Your task to perform on an android device: turn vacation reply on in the gmail app Image 0: 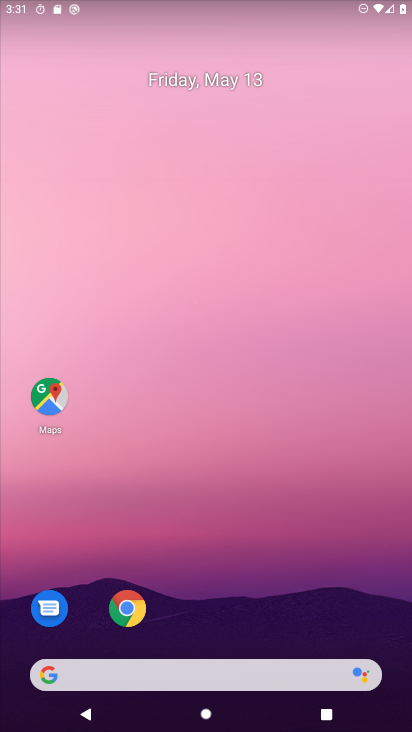
Step 0: drag from (263, 623) to (406, 17)
Your task to perform on an android device: turn vacation reply on in the gmail app Image 1: 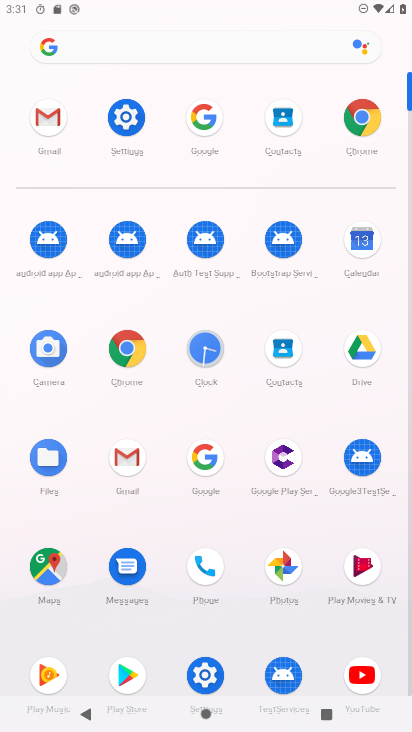
Step 1: click (52, 132)
Your task to perform on an android device: turn vacation reply on in the gmail app Image 2: 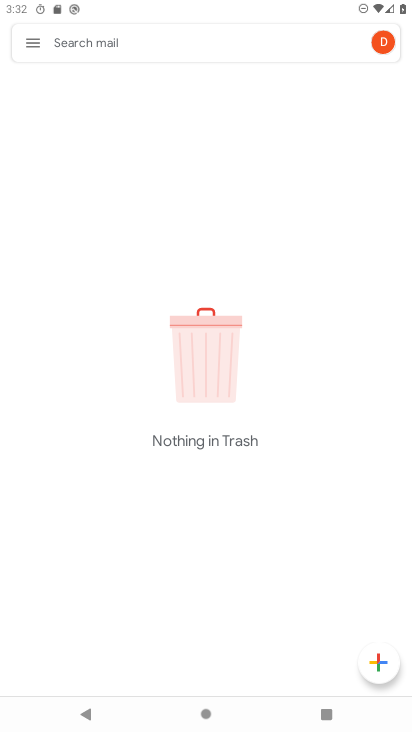
Step 2: click (31, 34)
Your task to perform on an android device: turn vacation reply on in the gmail app Image 3: 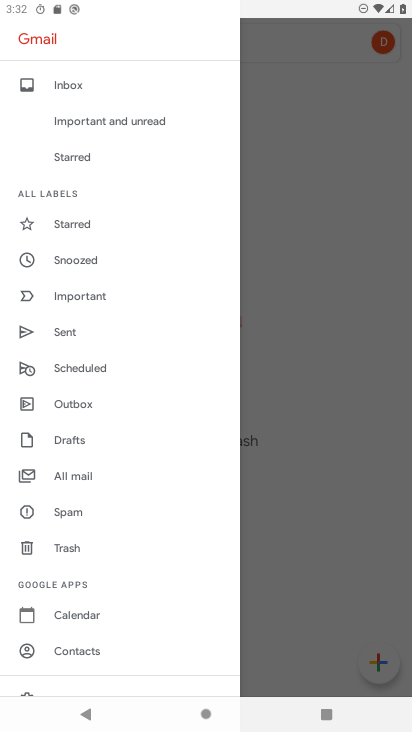
Step 3: drag from (170, 627) to (198, 341)
Your task to perform on an android device: turn vacation reply on in the gmail app Image 4: 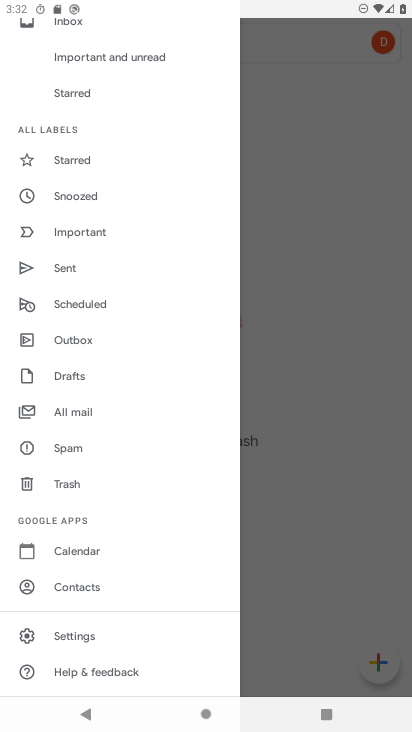
Step 4: click (81, 634)
Your task to perform on an android device: turn vacation reply on in the gmail app Image 5: 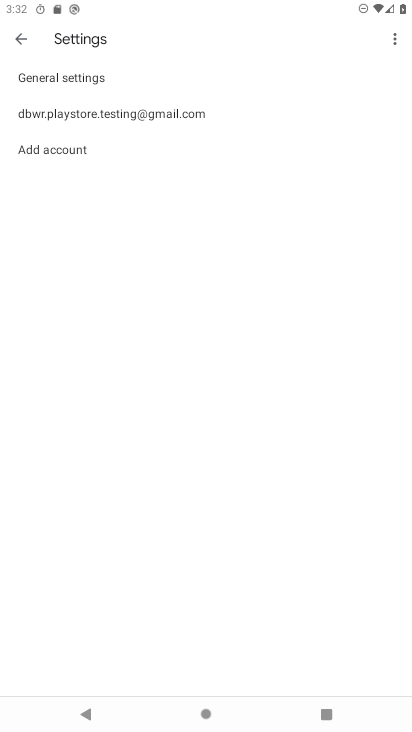
Step 5: click (178, 111)
Your task to perform on an android device: turn vacation reply on in the gmail app Image 6: 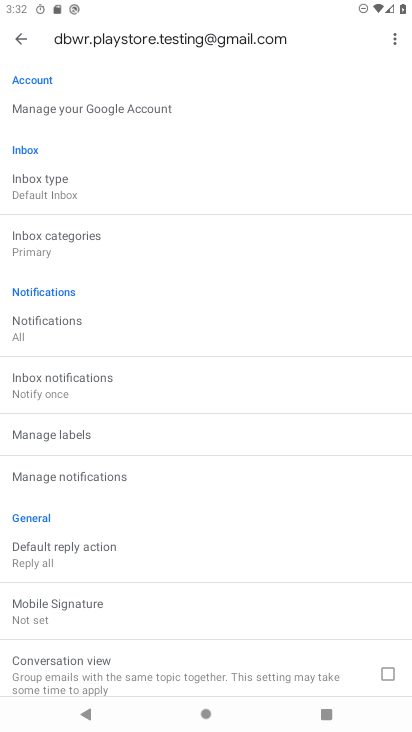
Step 6: drag from (185, 557) to (177, 288)
Your task to perform on an android device: turn vacation reply on in the gmail app Image 7: 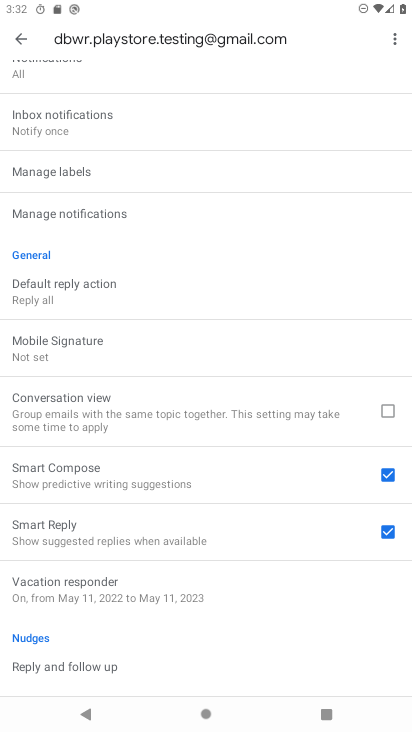
Step 7: click (116, 595)
Your task to perform on an android device: turn vacation reply on in the gmail app Image 8: 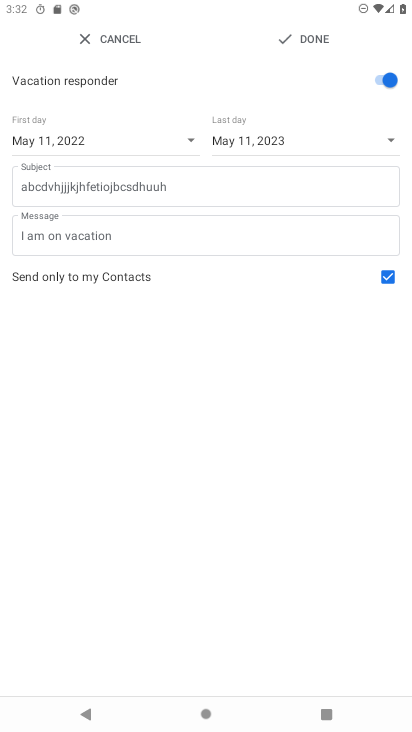
Step 8: click (292, 35)
Your task to perform on an android device: turn vacation reply on in the gmail app Image 9: 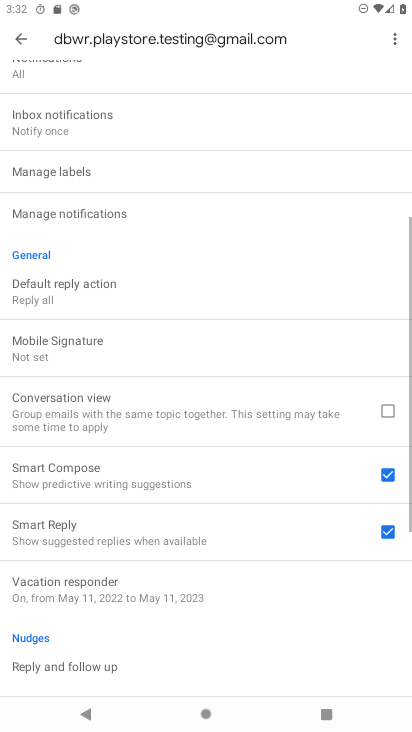
Step 9: task complete